Your task to perform on an android device: Open Youtube and go to "Your channel" Image 0: 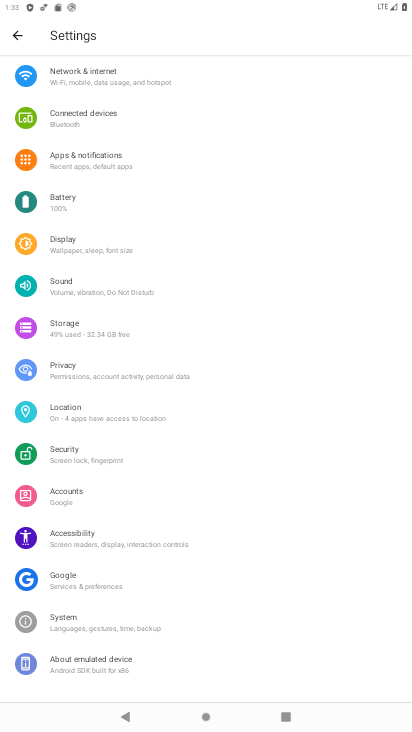
Step 0: drag from (284, 211) to (295, 556)
Your task to perform on an android device: Open Youtube and go to "Your channel" Image 1: 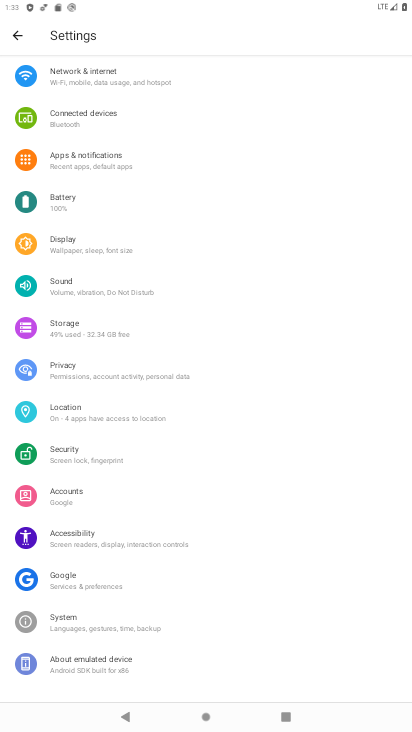
Step 1: press home button
Your task to perform on an android device: Open Youtube and go to "Your channel" Image 2: 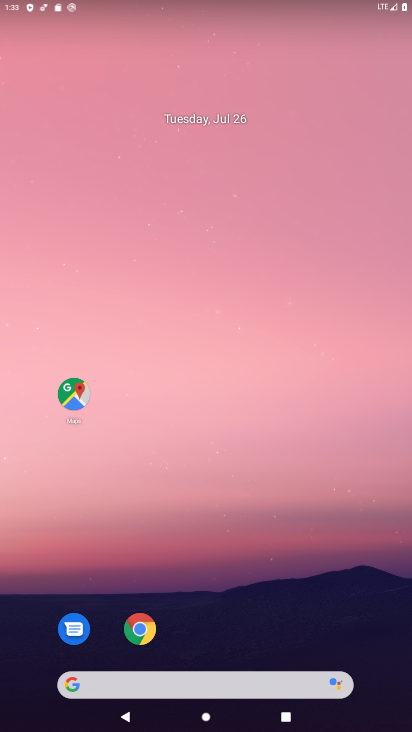
Step 2: drag from (394, 704) to (351, 66)
Your task to perform on an android device: Open Youtube and go to "Your channel" Image 3: 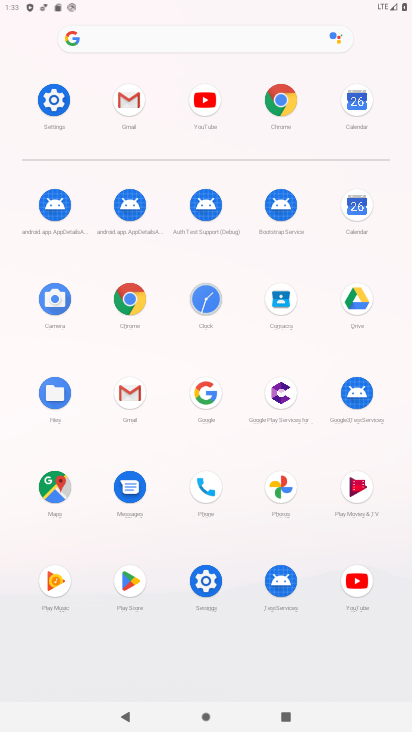
Step 3: click (362, 570)
Your task to perform on an android device: Open Youtube and go to "Your channel" Image 4: 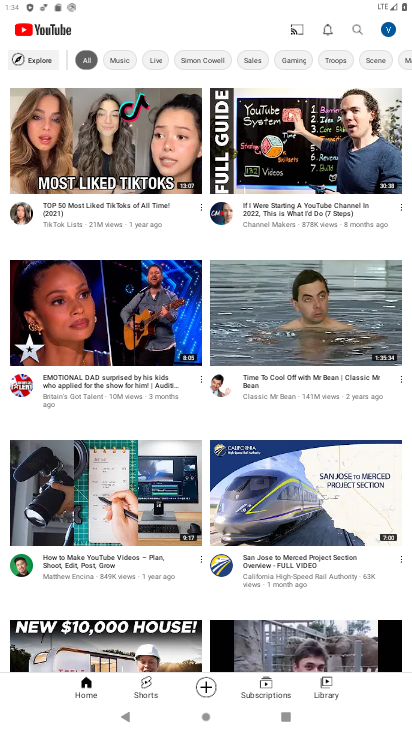
Step 4: click (389, 23)
Your task to perform on an android device: Open Youtube and go to "Your channel" Image 5: 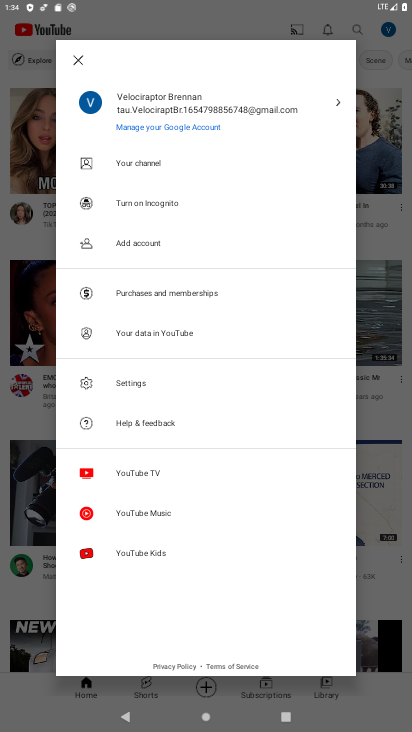
Step 5: click (136, 163)
Your task to perform on an android device: Open Youtube and go to "Your channel" Image 6: 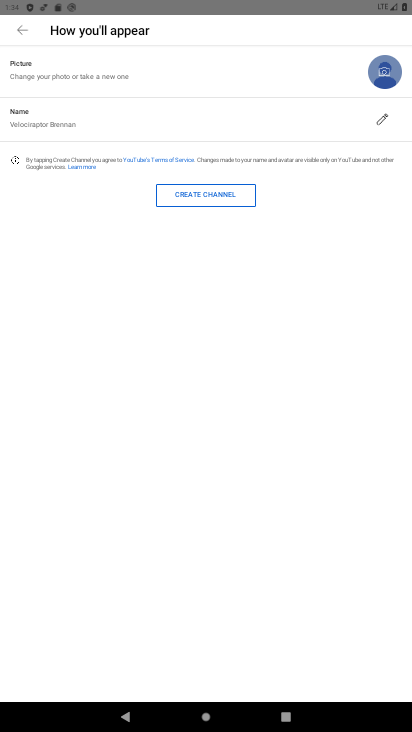
Step 6: task complete